Your task to perform on an android device: turn on notifications settings in the gmail app Image 0: 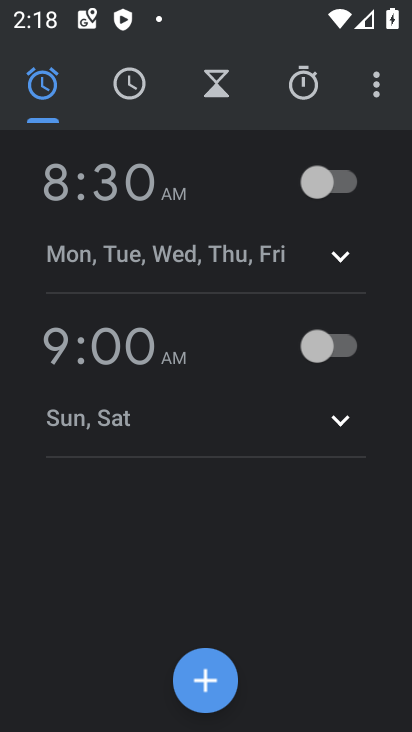
Step 0: press home button
Your task to perform on an android device: turn on notifications settings in the gmail app Image 1: 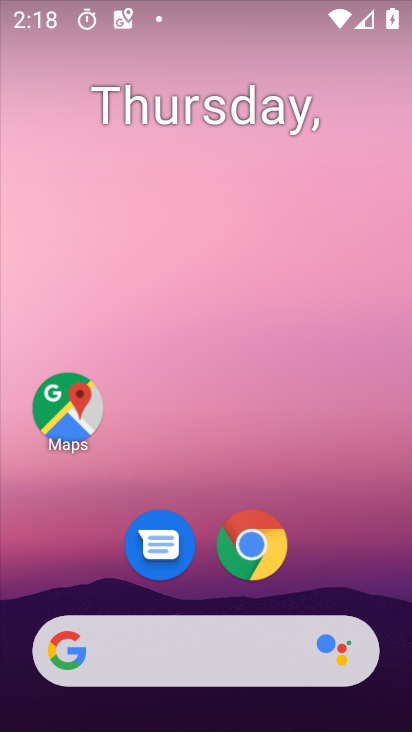
Step 1: drag from (248, 723) to (236, 52)
Your task to perform on an android device: turn on notifications settings in the gmail app Image 2: 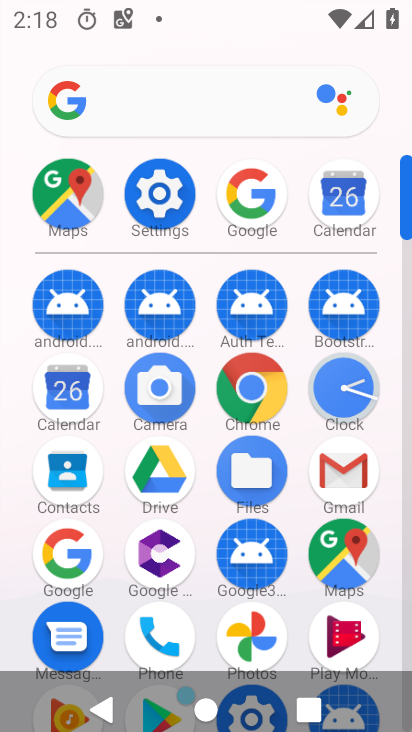
Step 2: click (357, 475)
Your task to perform on an android device: turn on notifications settings in the gmail app Image 3: 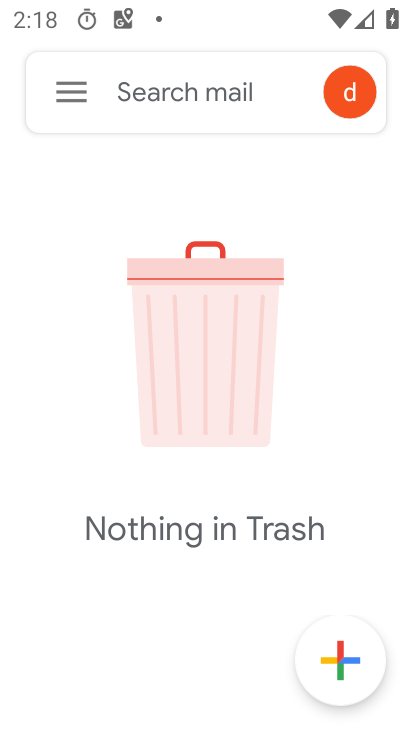
Step 3: click (60, 97)
Your task to perform on an android device: turn on notifications settings in the gmail app Image 4: 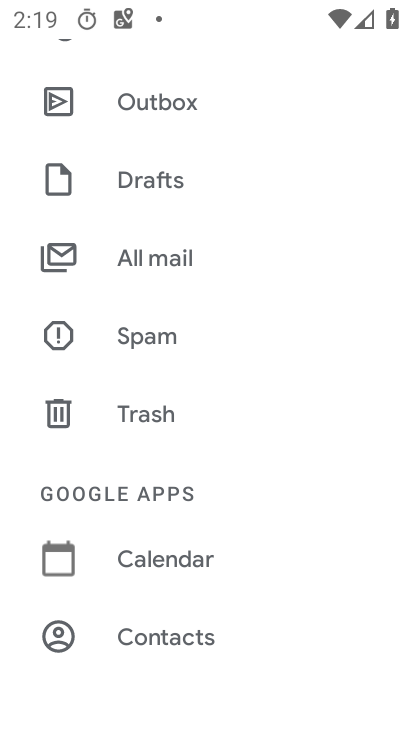
Step 4: drag from (141, 640) to (169, 174)
Your task to perform on an android device: turn on notifications settings in the gmail app Image 5: 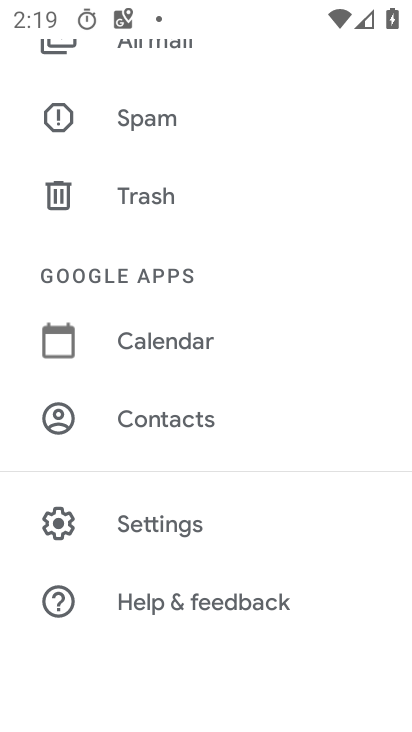
Step 5: click (182, 518)
Your task to perform on an android device: turn on notifications settings in the gmail app Image 6: 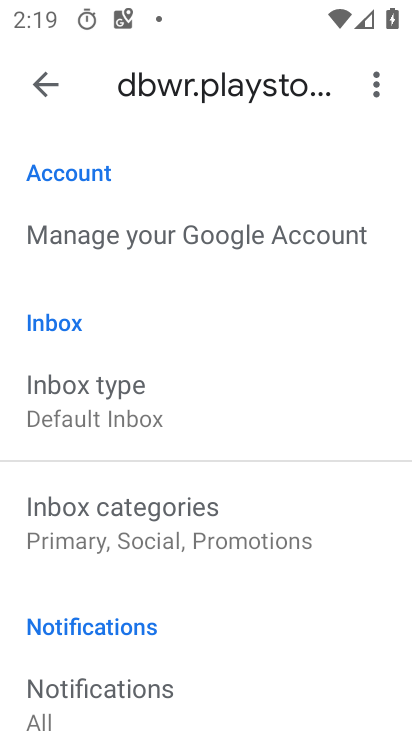
Step 6: task complete